Your task to perform on an android device: turn on sleep mode Image 0: 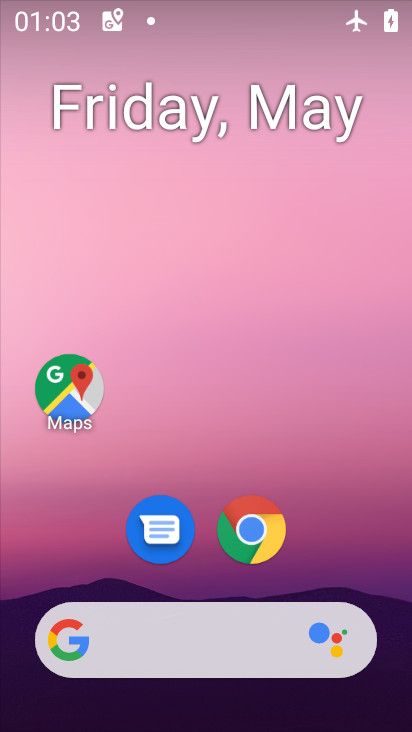
Step 0: drag from (306, 535) to (303, 215)
Your task to perform on an android device: turn on sleep mode Image 1: 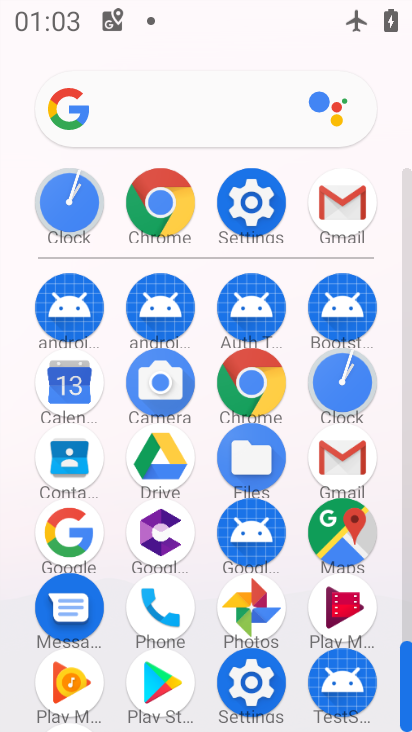
Step 1: click (164, 192)
Your task to perform on an android device: turn on sleep mode Image 2: 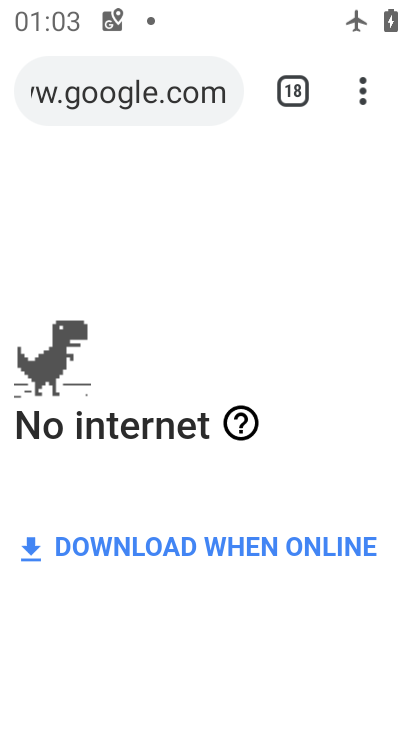
Step 2: click (350, 80)
Your task to perform on an android device: turn on sleep mode Image 3: 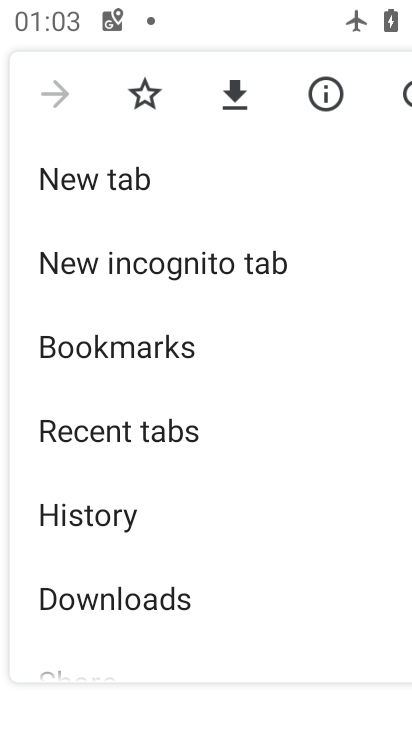
Step 3: press back button
Your task to perform on an android device: turn on sleep mode Image 4: 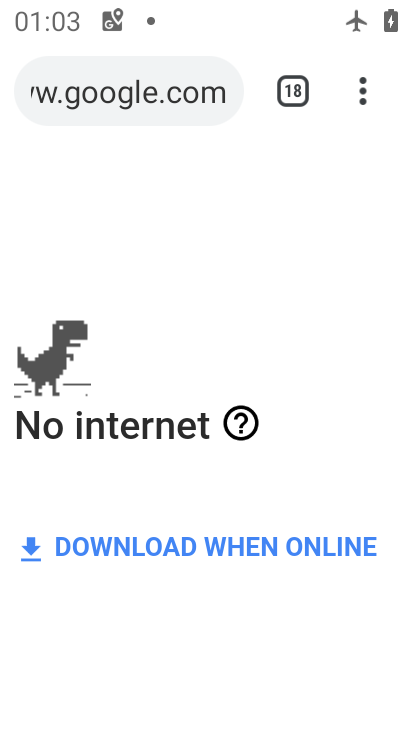
Step 4: press home button
Your task to perform on an android device: turn on sleep mode Image 5: 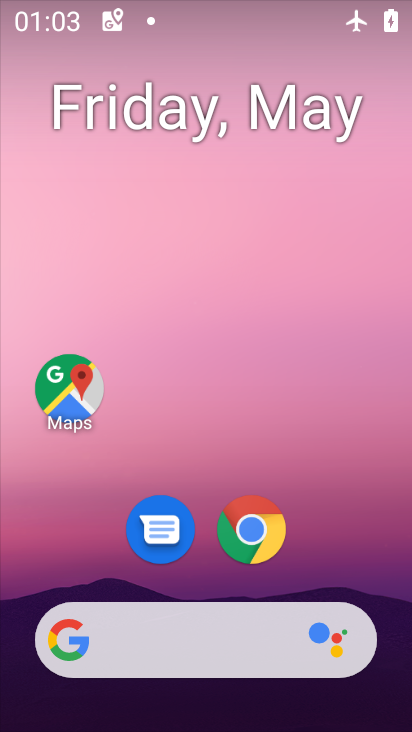
Step 5: drag from (314, 405) to (317, 277)
Your task to perform on an android device: turn on sleep mode Image 6: 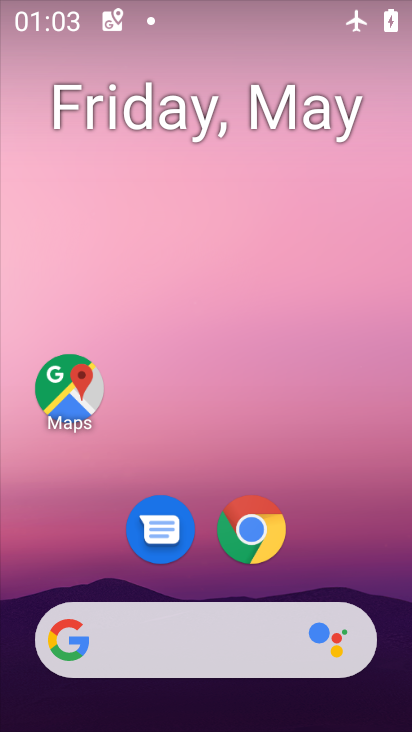
Step 6: drag from (272, 542) to (272, 253)
Your task to perform on an android device: turn on sleep mode Image 7: 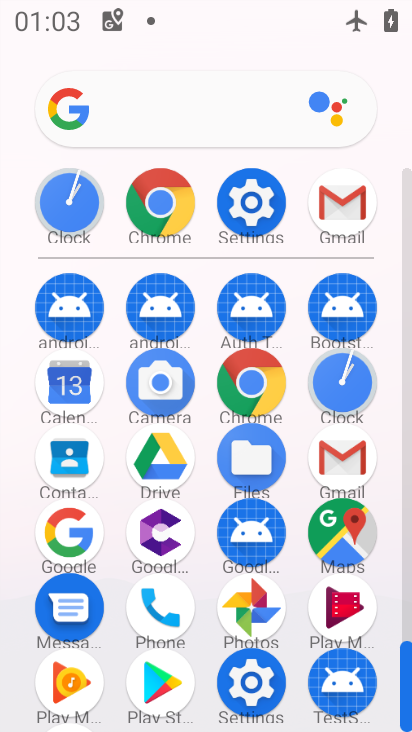
Step 7: click (241, 188)
Your task to perform on an android device: turn on sleep mode Image 8: 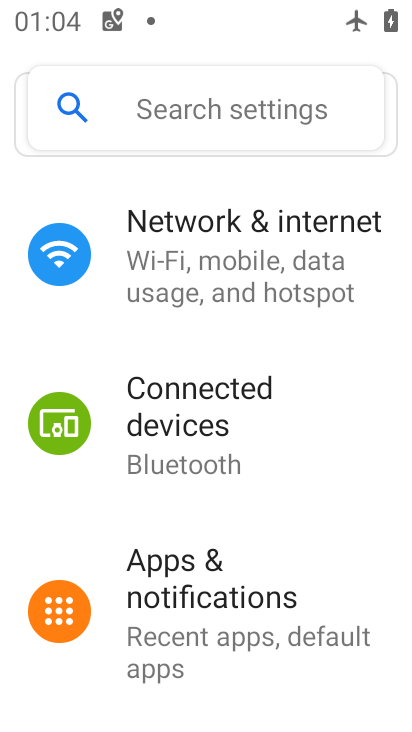
Step 8: task complete